Your task to perform on an android device: Open privacy settings Image 0: 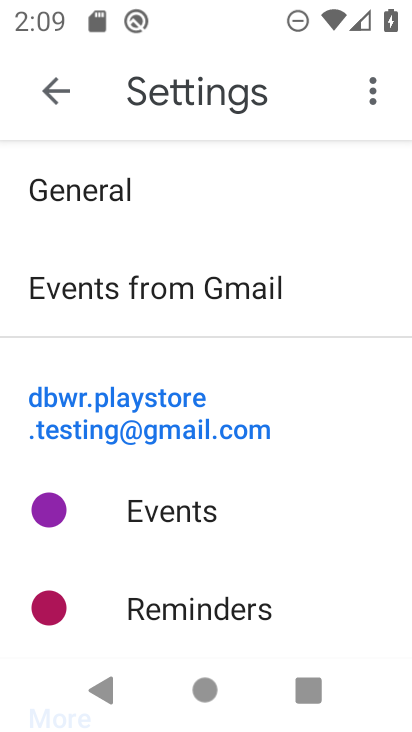
Step 0: press home button
Your task to perform on an android device: Open privacy settings Image 1: 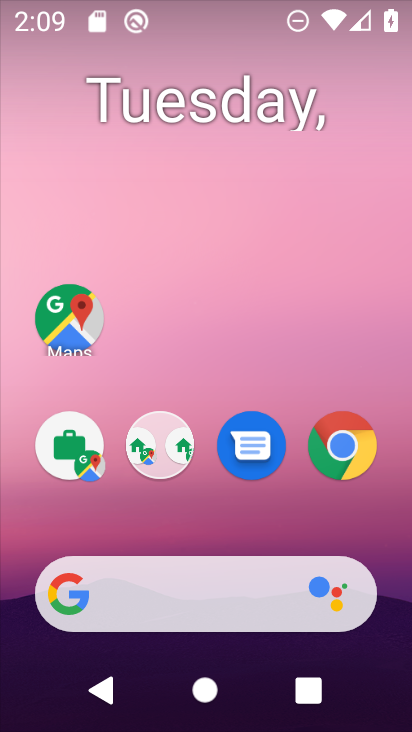
Step 1: drag from (221, 557) to (243, 196)
Your task to perform on an android device: Open privacy settings Image 2: 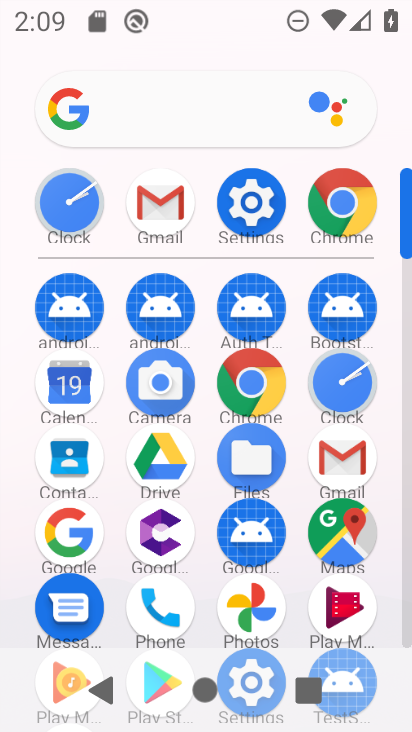
Step 2: click (260, 208)
Your task to perform on an android device: Open privacy settings Image 3: 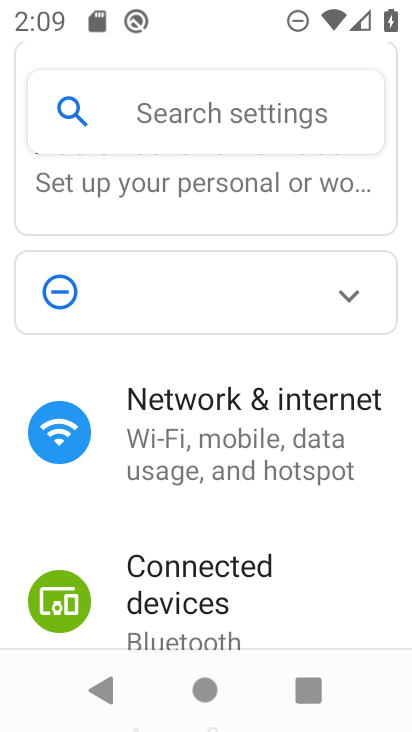
Step 3: drag from (192, 538) to (217, 327)
Your task to perform on an android device: Open privacy settings Image 4: 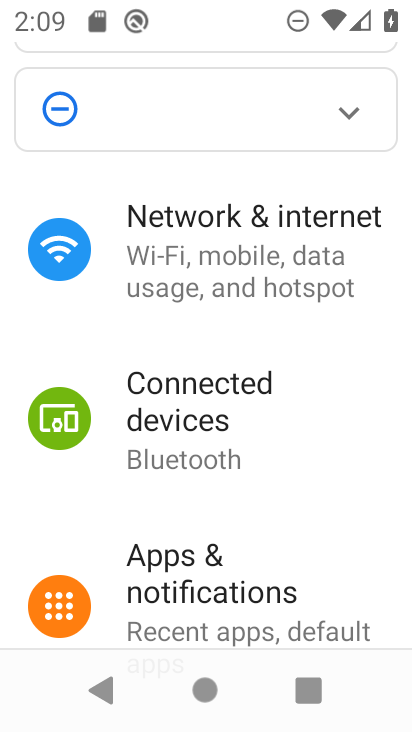
Step 4: drag from (212, 542) to (202, 310)
Your task to perform on an android device: Open privacy settings Image 5: 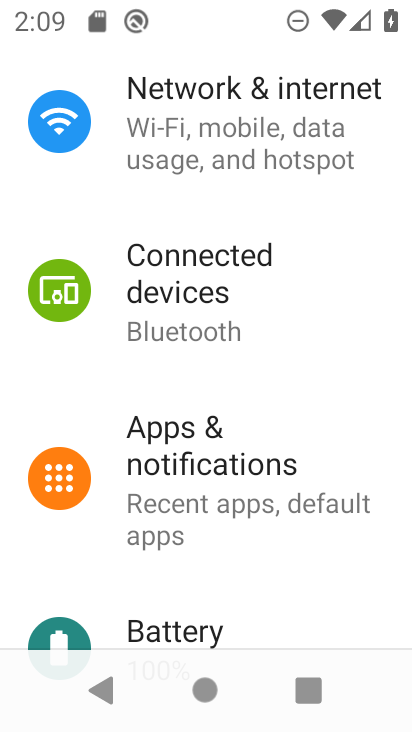
Step 5: drag from (211, 562) to (193, 190)
Your task to perform on an android device: Open privacy settings Image 6: 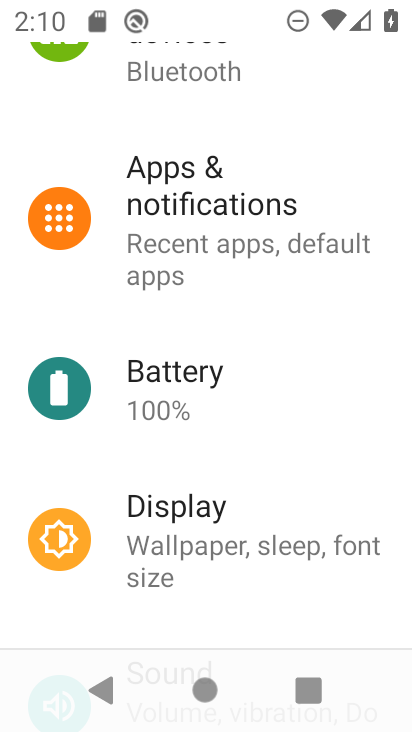
Step 6: drag from (242, 496) to (249, 249)
Your task to perform on an android device: Open privacy settings Image 7: 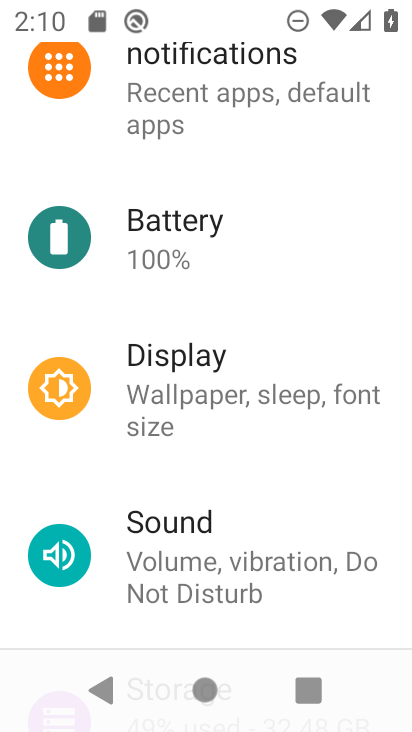
Step 7: drag from (221, 587) to (221, 260)
Your task to perform on an android device: Open privacy settings Image 8: 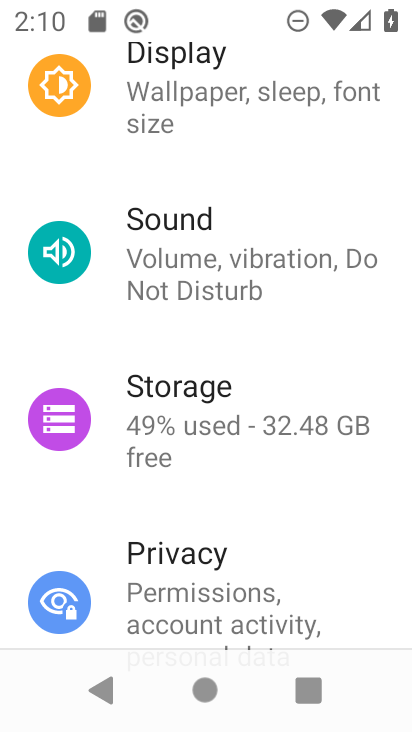
Step 8: click (230, 592)
Your task to perform on an android device: Open privacy settings Image 9: 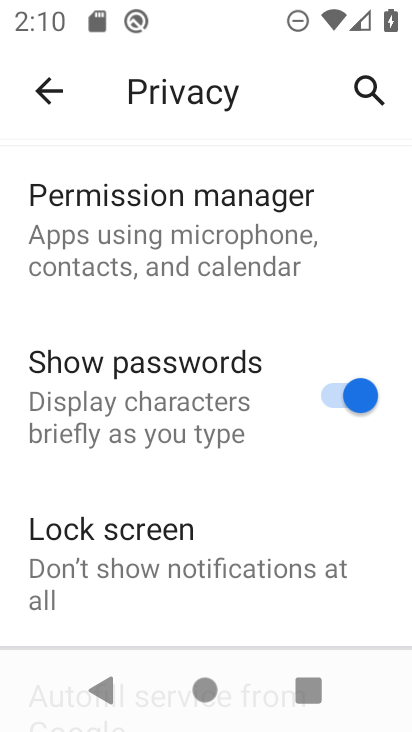
Step 9: task complete